Your task to perform on an android device: Open ESPN.com Image 0: 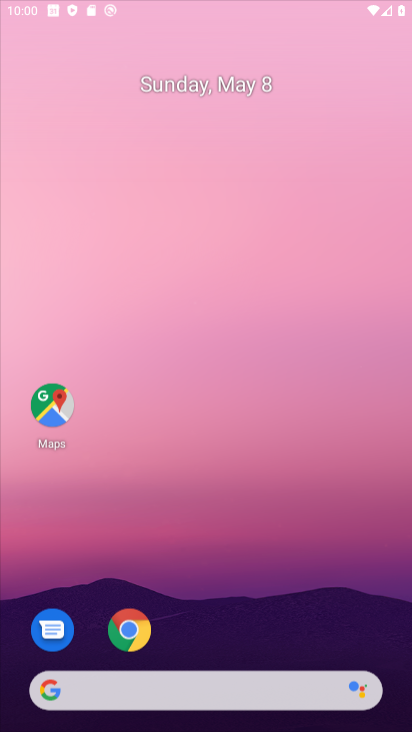
Step 0: click (411, 288)
Your task to perform on an android device: Open ESPN.com Image 1: 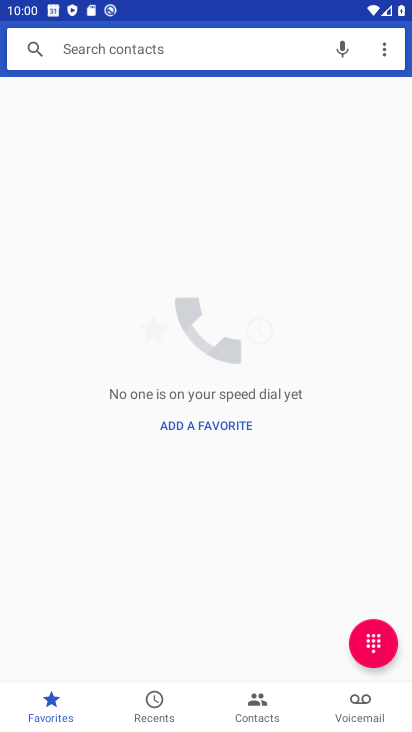
Step 1: press home button
Your task to perform on an android device: Open ESPN.com Image 2: 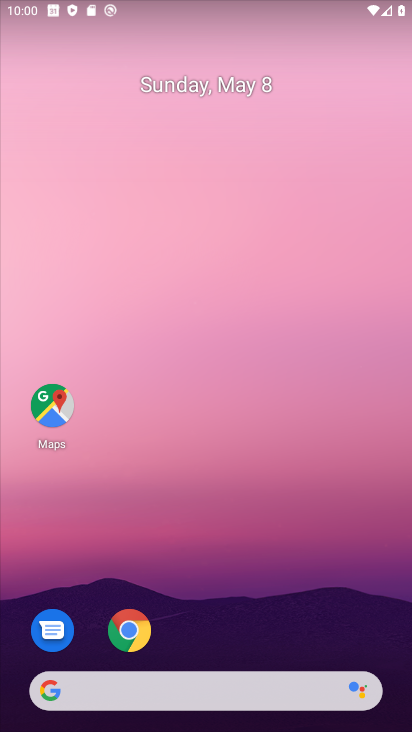
Step 2: click (125, 632)
Your task to perform on an android device: Open ESPN.com Image 3: 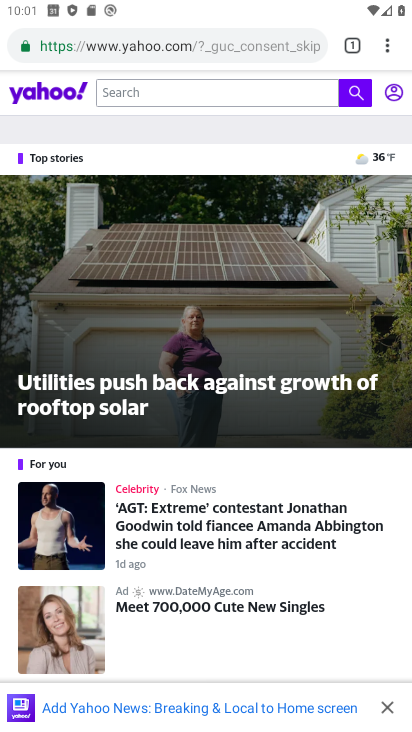
Step 3: click (387, 45)
Your task to perform on an android device: Open ESPN.com Image 4: 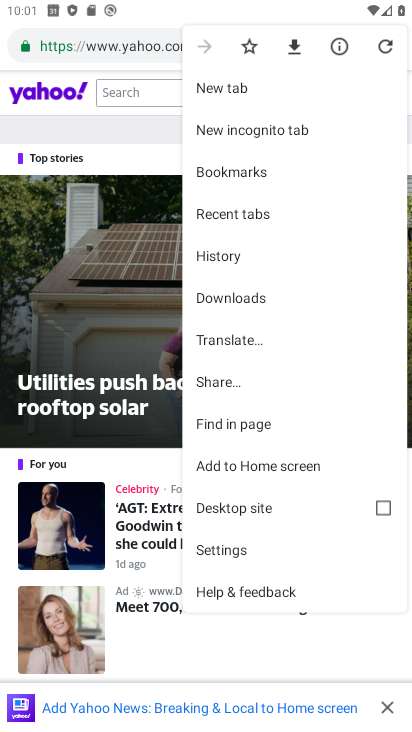
Step 4: click (237, 87)
Your task to perform on an android device: Open ESPN.com Image 5: 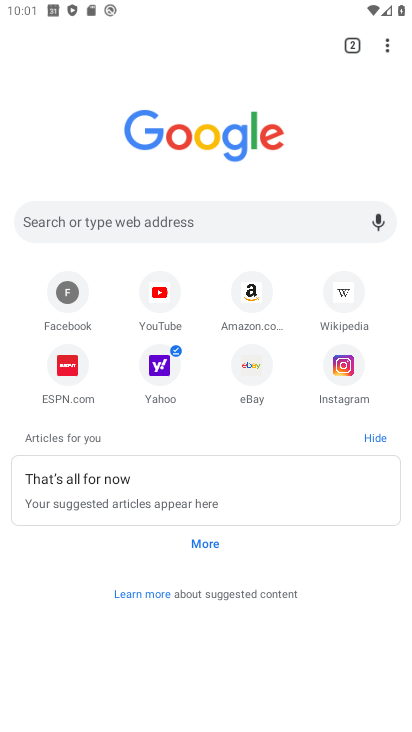
Step 5: click (68, 368)
Your task to perform on an android device: Open ESPN.com Image 6: 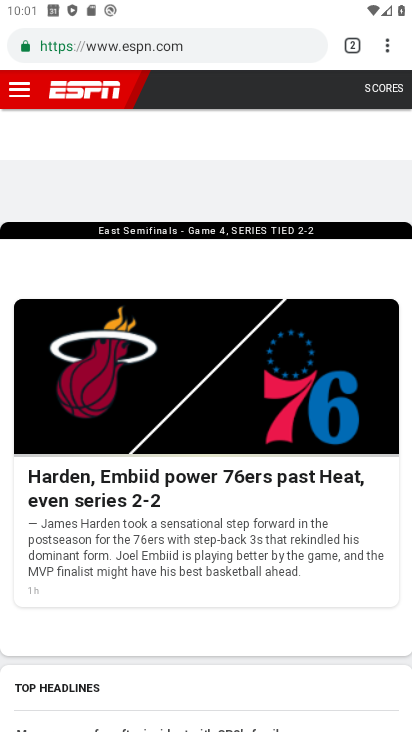
Step 6: task complete